Your task to perform on an android device: check data usage Image 0: 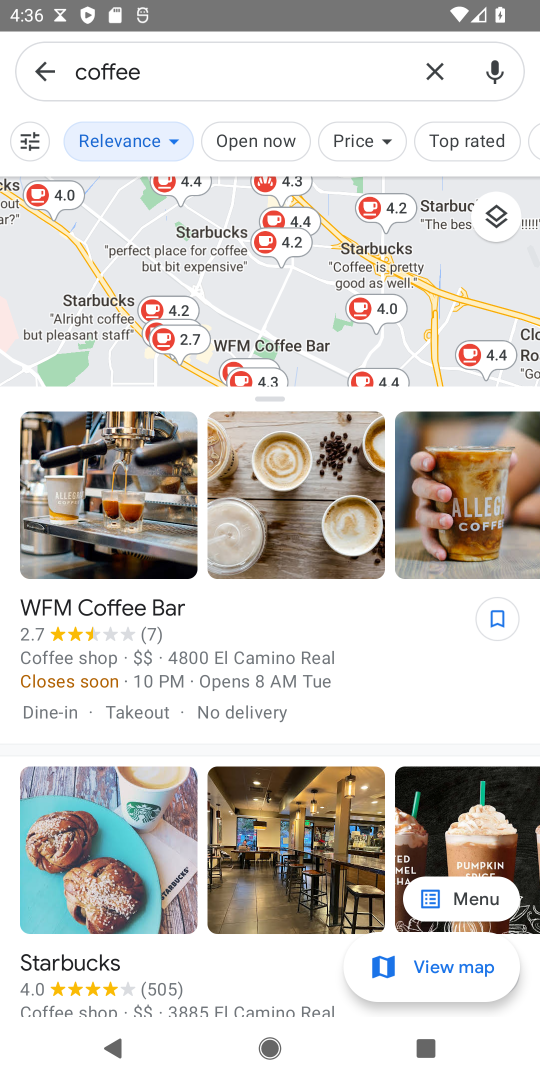
Step 0: press back button
Your task to perform on an android device: check data usage Image 1: 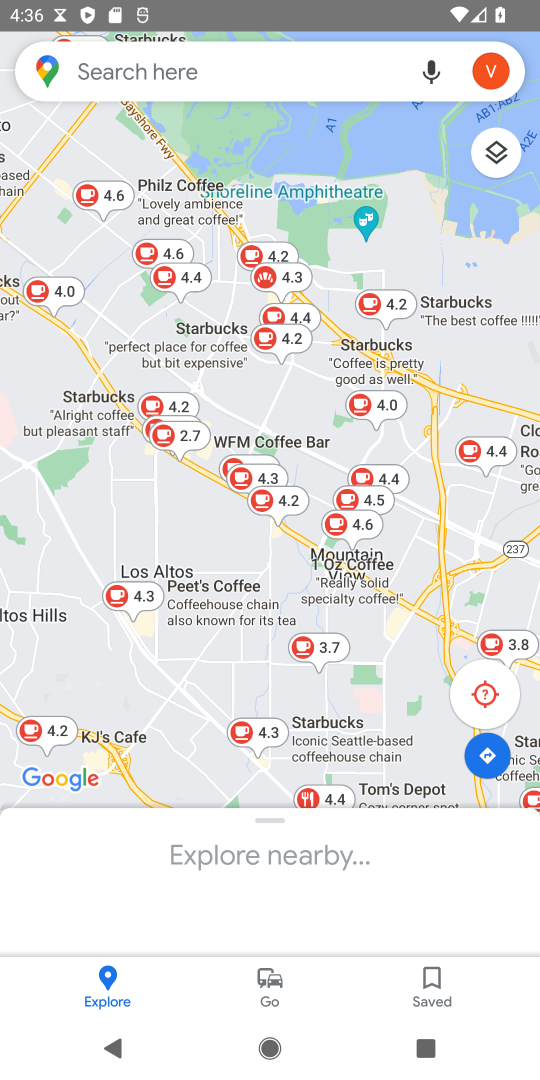
Step 1: press home button
Your task to perform on an android device: check data usage Image 2: 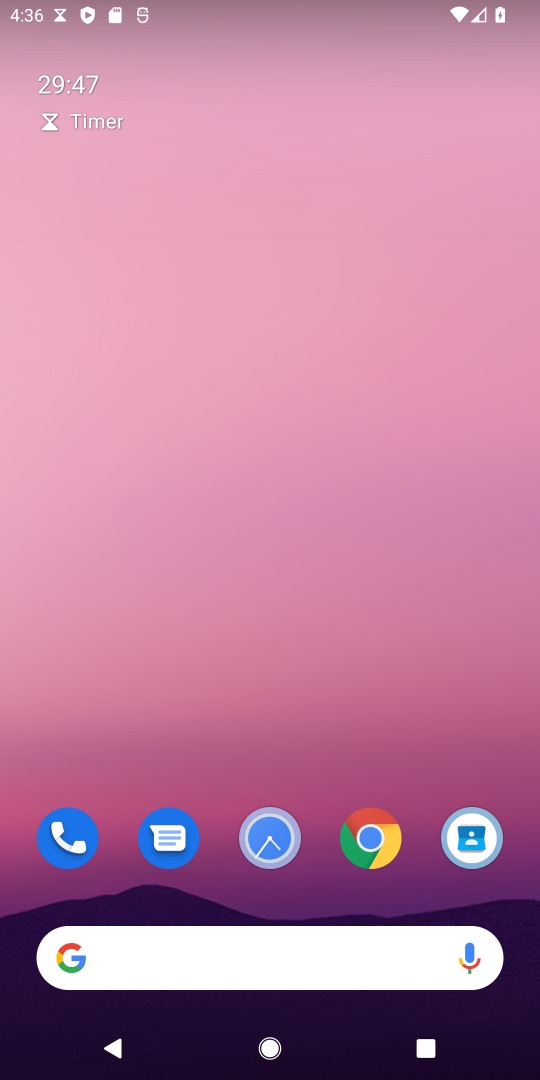
Step 2: drag from (312, 799) to (199, 2)
Your task to perform on an android device: check data usage Image 3: 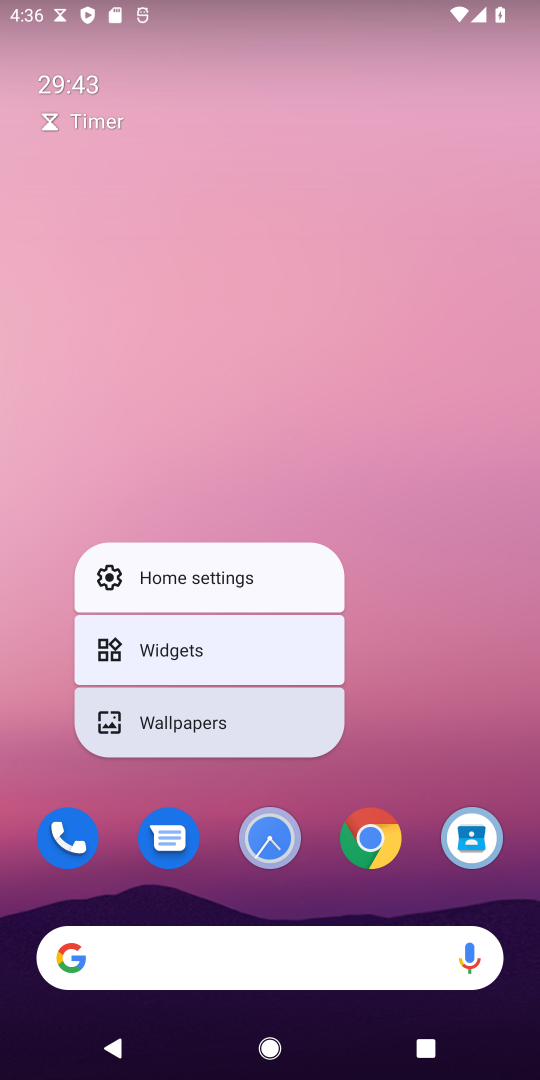
Step 3: drag from (415, 797) to (387, 25)
Your task to perform on an android device: check data usage Image 4: 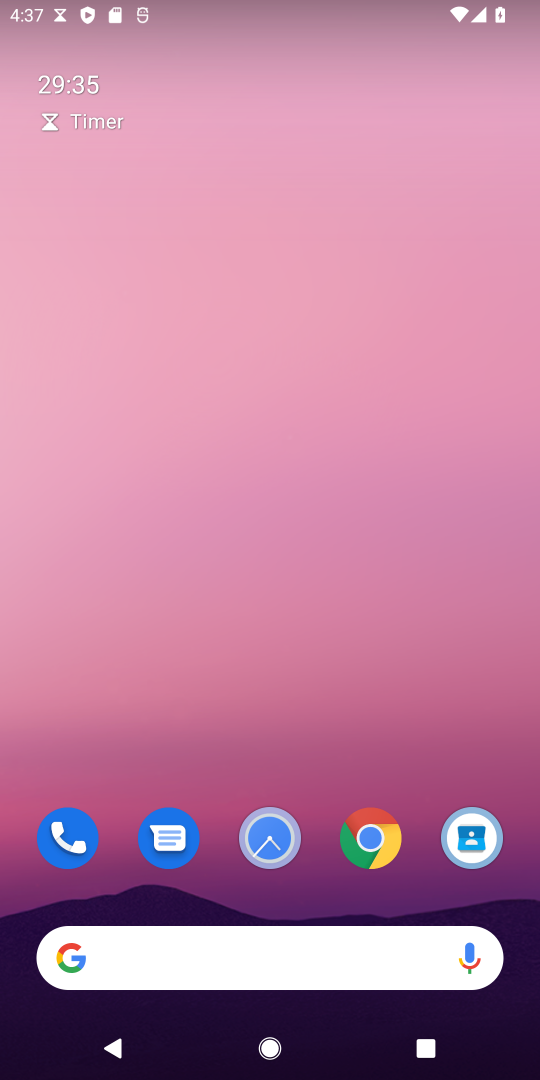
Step 4: drag from (329, 912) to (307, 64)
Your task to perform on an android device: check data usage Image 5: 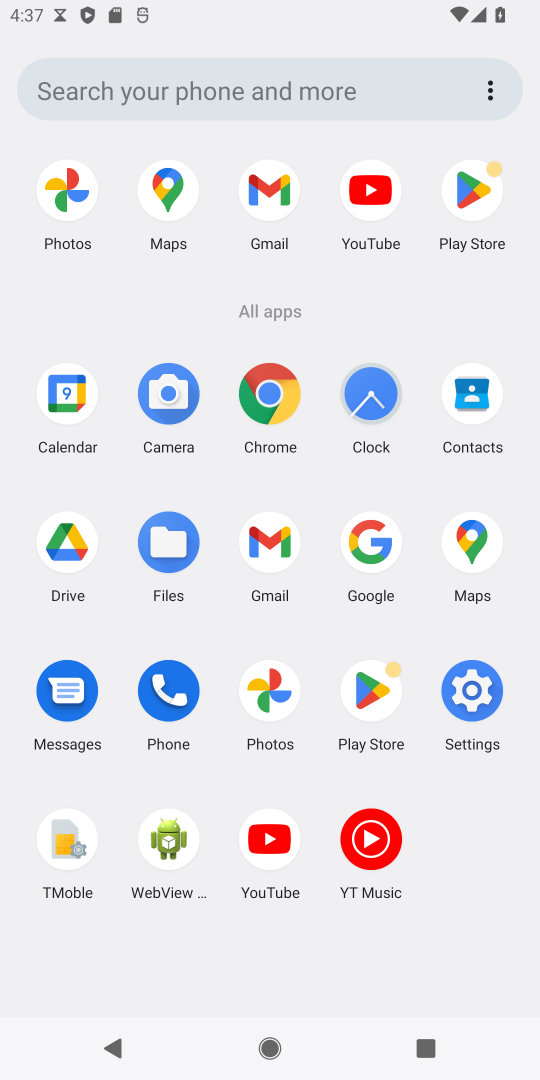
Step 5: click (472, 711)
Your task to perform on an android device: check data usage Image 6: 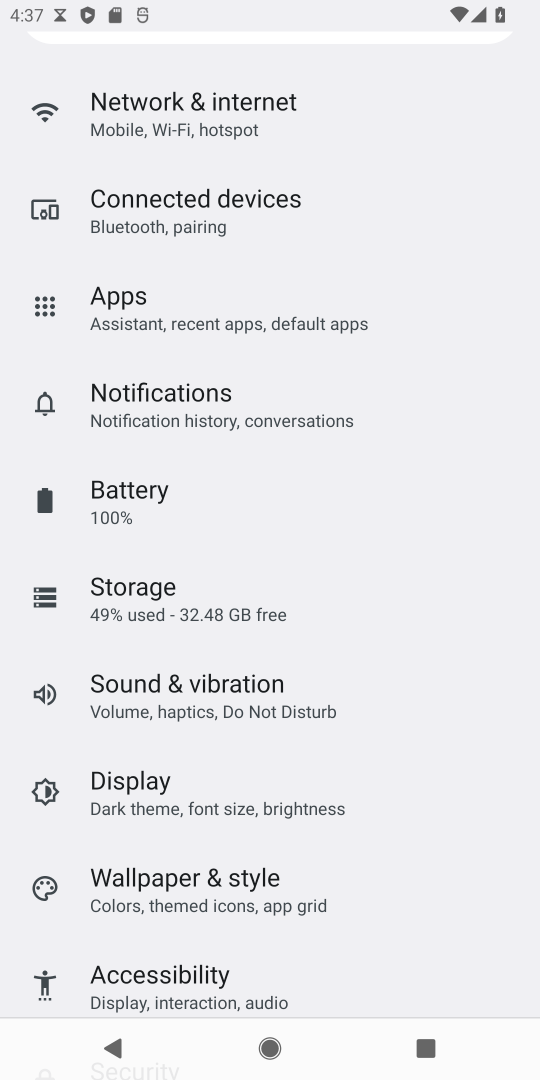
Step 6: click (193, 123)
Your task to perform on an android device: check data usage Image 7: 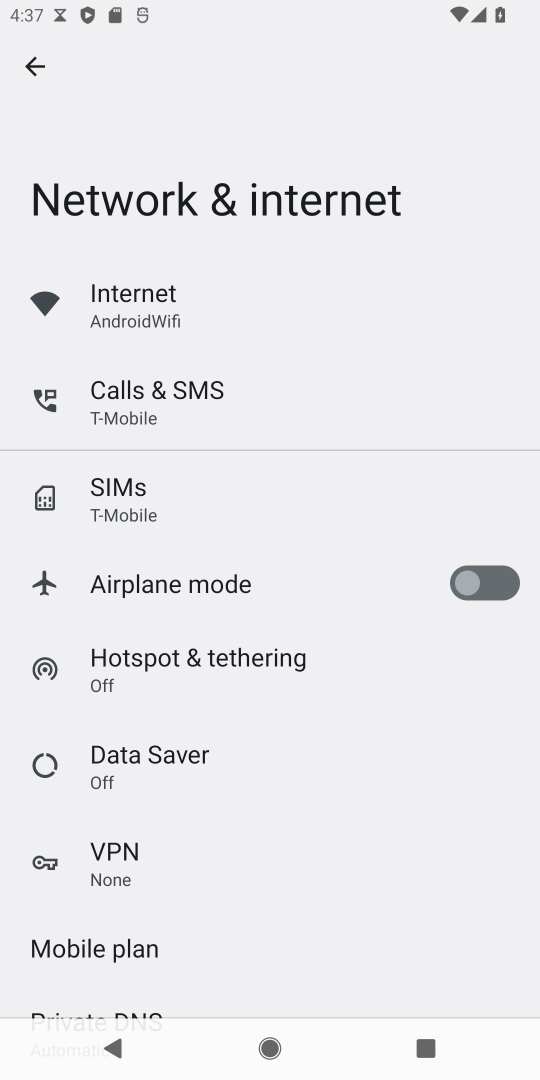
Step 7: drag from (259, 861) to (219, 214)
Your task to perform on an android device: check data usage Image 8: 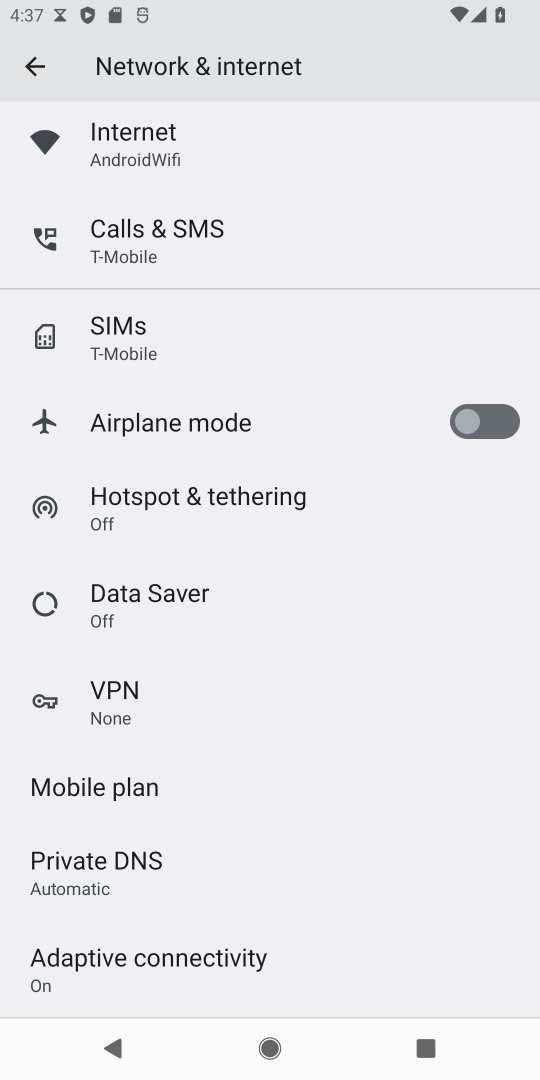
Step 8: click (245, 127)
Your task to perform on an android device: check data usage Image 9: 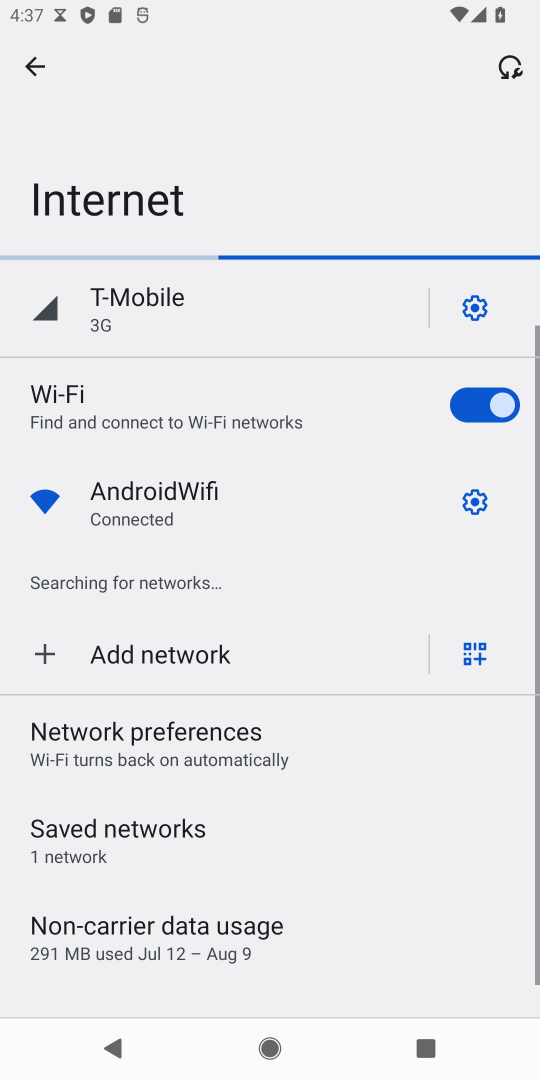
Step 9: click (259, 953)
Your task to perform on an android device: check data usage Image 10: 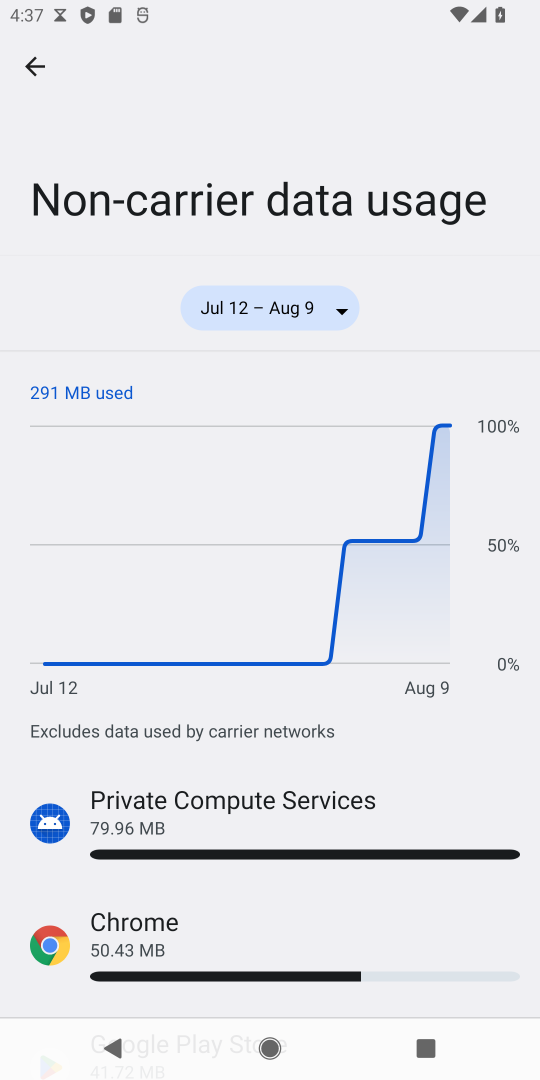
Step 10: task complete